Your task to perform on an android device: search for starred emails in the gmail app Image 0: 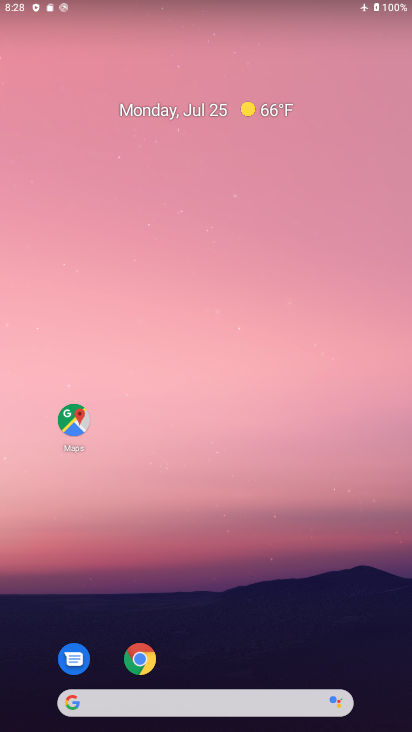
Step 0: click (183, 212)
Your task to perform on an android device: search for starred emails in the gmail app Image 1: 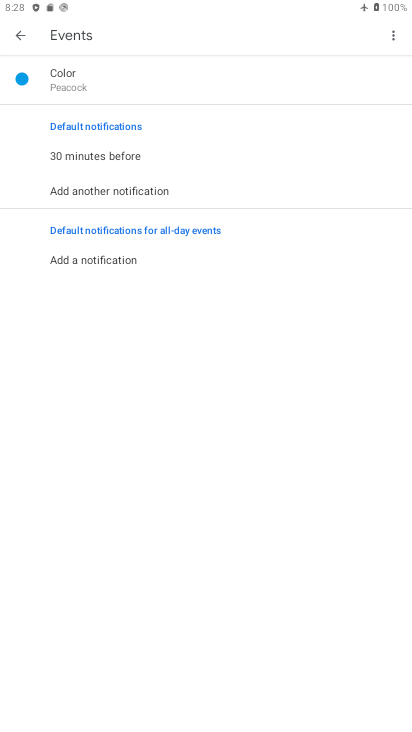
Step 1: click (30, 29)
Your task to perform on an android device: search for starred emails in the gmail app Image 2: 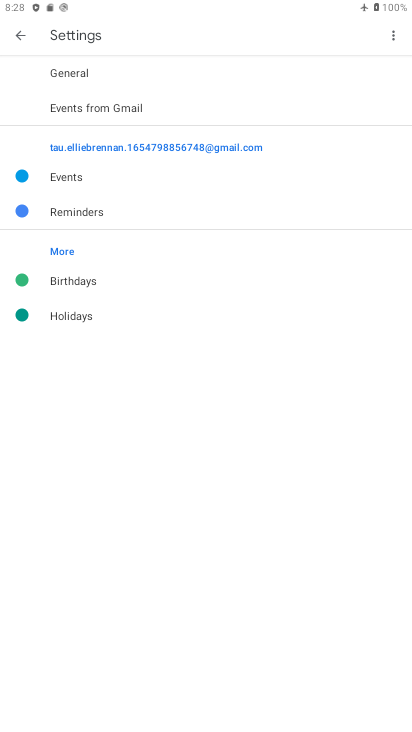
Step 2: click (29, 36)
Your task to perform on an android device: search for starred emails in the gmail app Image 3: 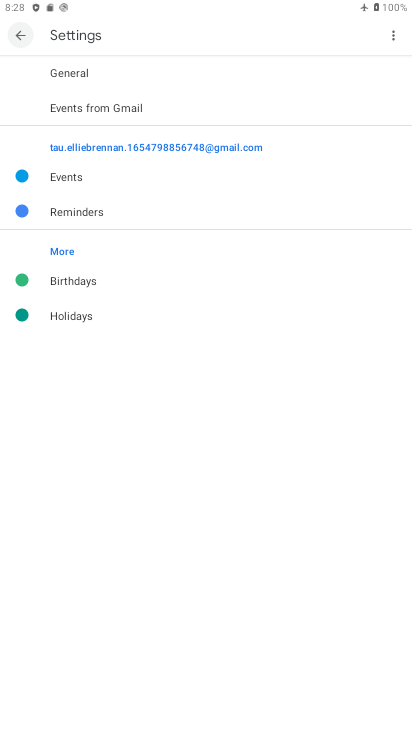
Step 3: click (18, 35)
Your task to perform on an android device: search for starred emails in the gmail app Image 4: 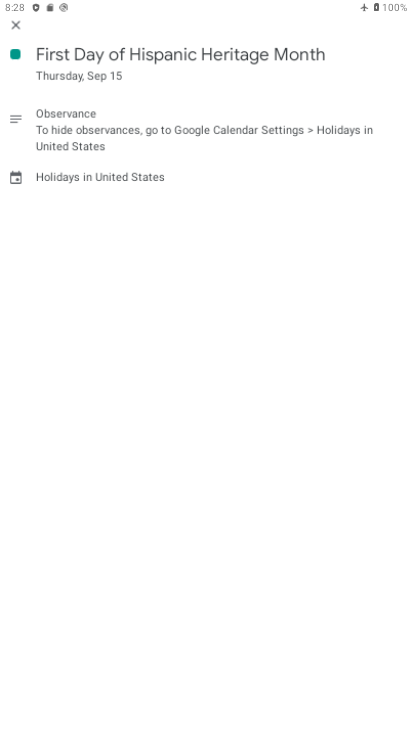
Step 4: click (18, 35)
Your task to perform on an android device: search for starred emails in the gmail app Image 5: 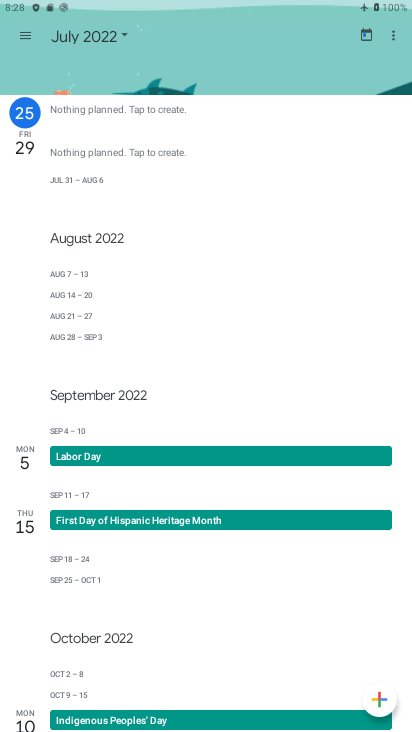
Step 5: press back button
Your task to perform on an android device: search for starred emails in the gmail app Image 6: 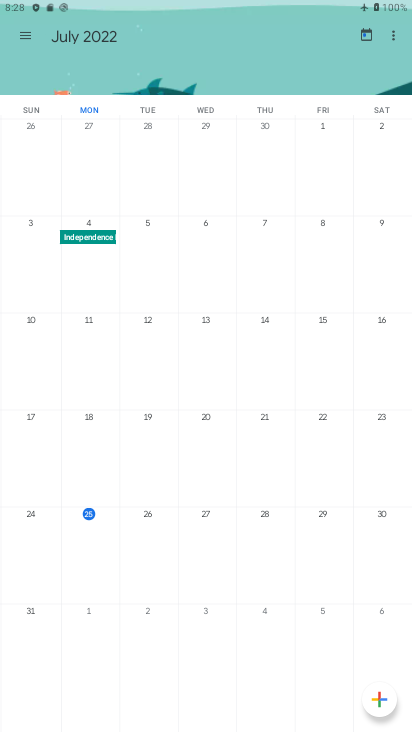
Step 6: press back button
Your task to perform on an android device: search for starred emails in the gmail app Image 7: 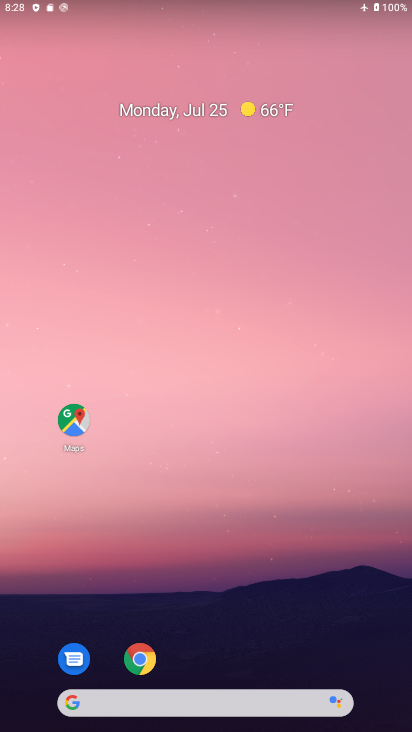
Step 7: drag from (231, 342) to (216, 144)
Your task to perform on an android device: search for starred emails in the gmail app Image 8: 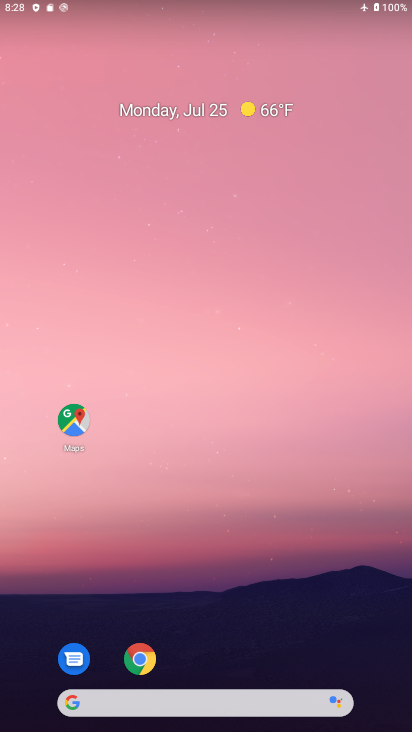
Step 8: drag from (274, 624) to (190, 156)
Your task to perform on an android device: search for starred emails in the gmail app Image 9: 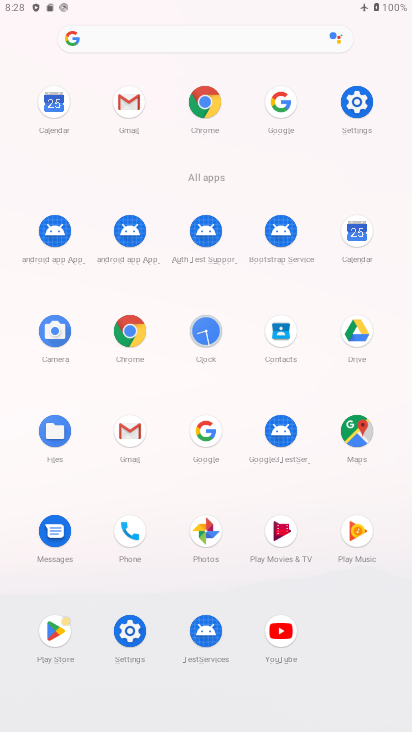
Step 9: drag from (238, 461) to (207, 164)
Your task to perform on an android device: search for starred emails in the gmail app Image 10: 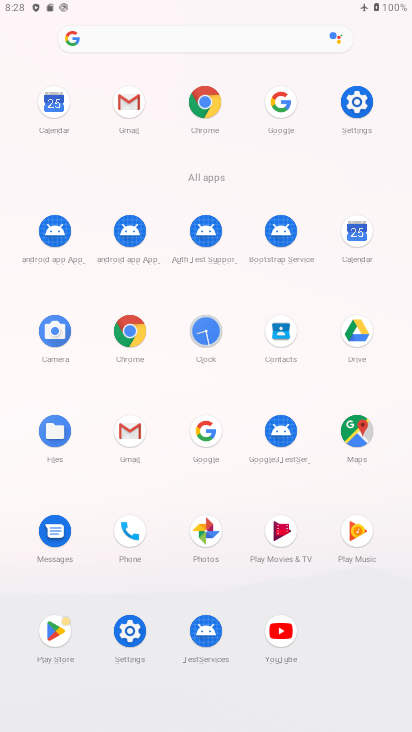
Step 10: click (124, 411)
Your task to perform on an android device: search for starred emails in the gmail app Image 11: 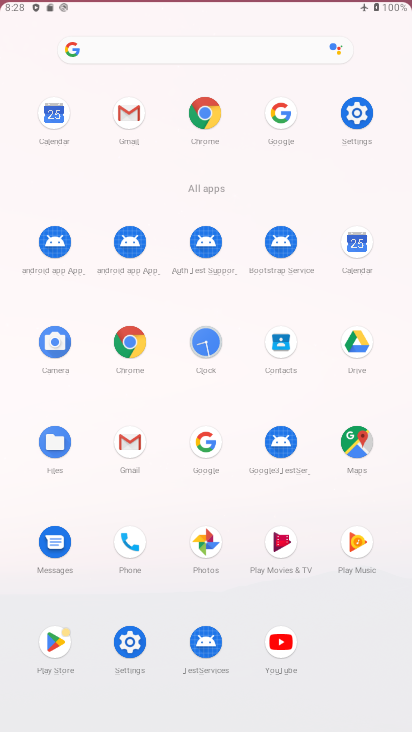
Step 11: click (127, 428)
Your task to perform on an android device: search for starred emails in the gmail app Image 12: 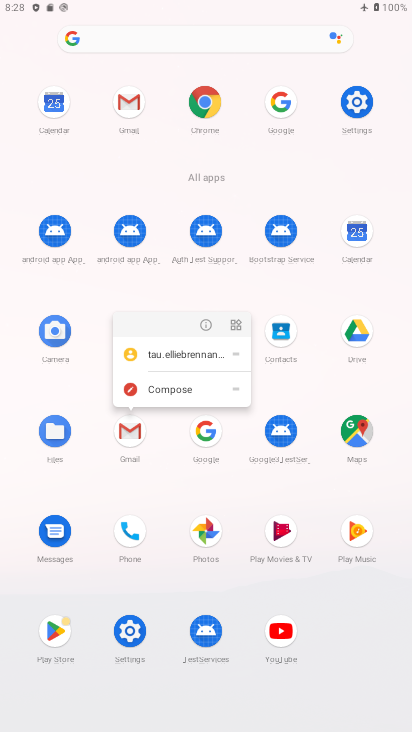
Step 12: click (139, 424)
Your task to perform on an android device: search for starred emails in the gmail app Image 13: 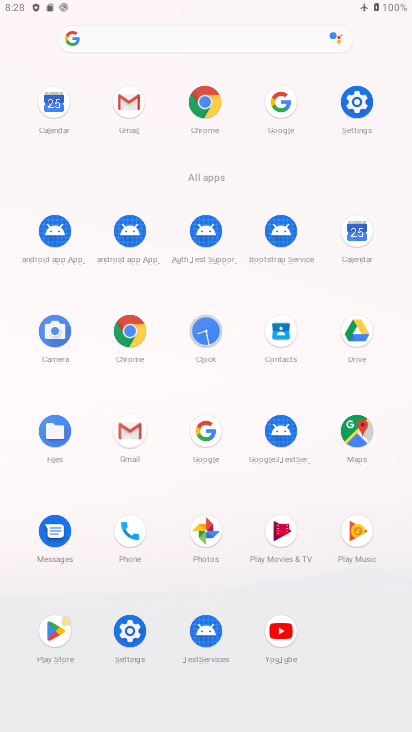
Step 13: click (132, 432)
Your task to perform on an android device: search for starred emails in the gmail app Image 14: 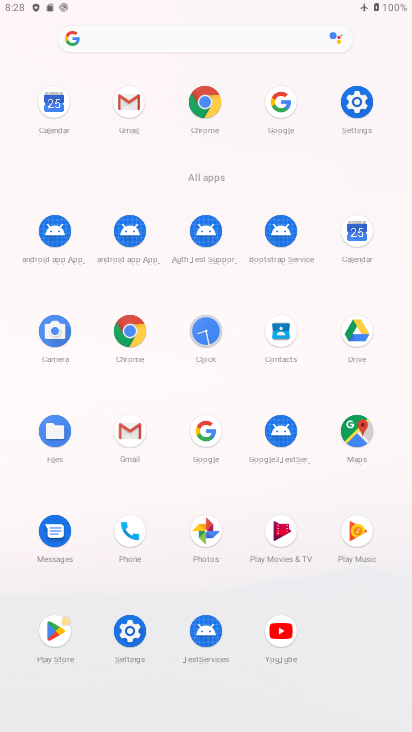
Step 14: click (133, 438)
Your task to perform on an android device: search for starred emails in the gmail app Image 15: 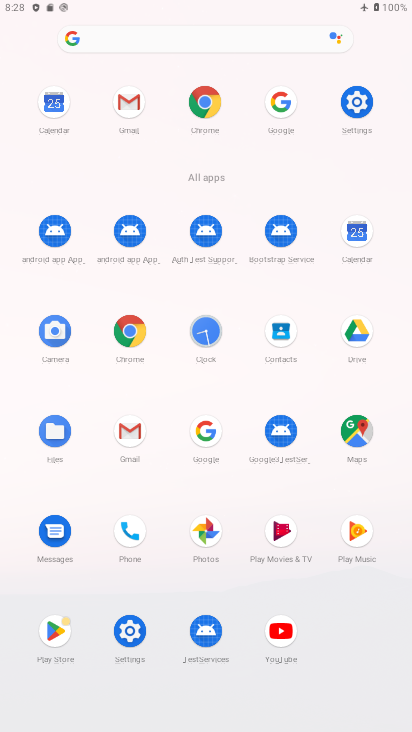
Step 15: click (110, 437)
Your task to perform on an android device: search for starred emails in the gmail app Image 16: 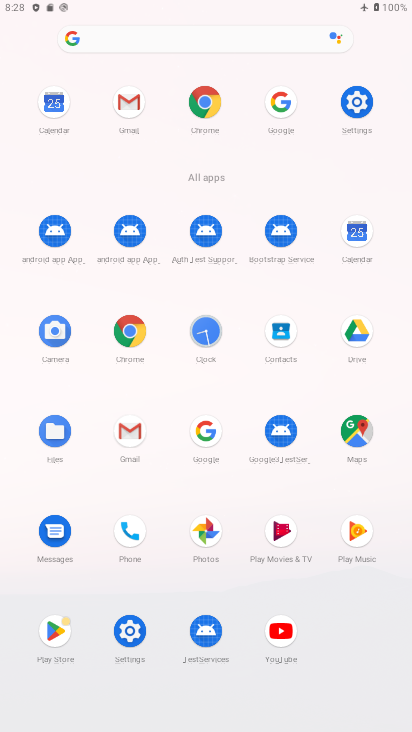
Step 16: click (128, 422)
Your task to perform on an android device: search for starred emails in the gmail app Image 17: 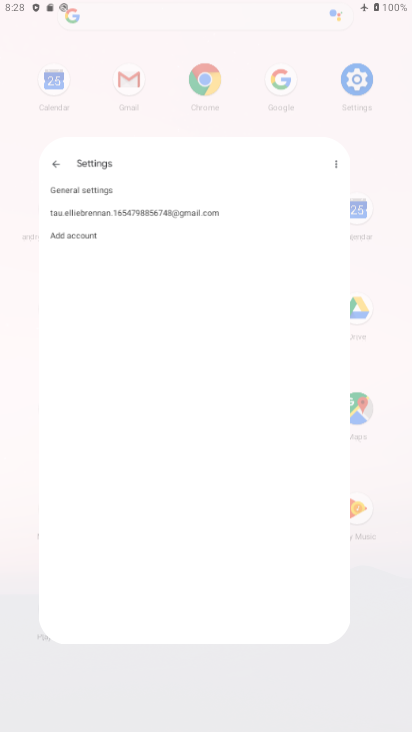
Step 17: click (133, 439)
Your task to perform on an android device: search for starred emails in the gmail app Image 18: 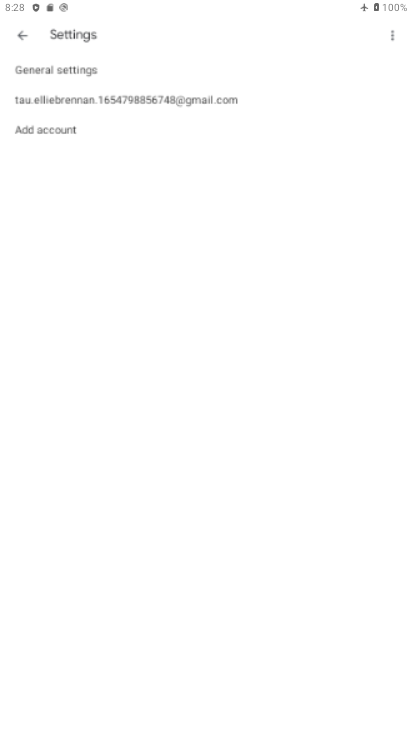
Step 18: click (133, 443)
Your task to perform on an android device: search for starred emails in the gmail app Image 19: 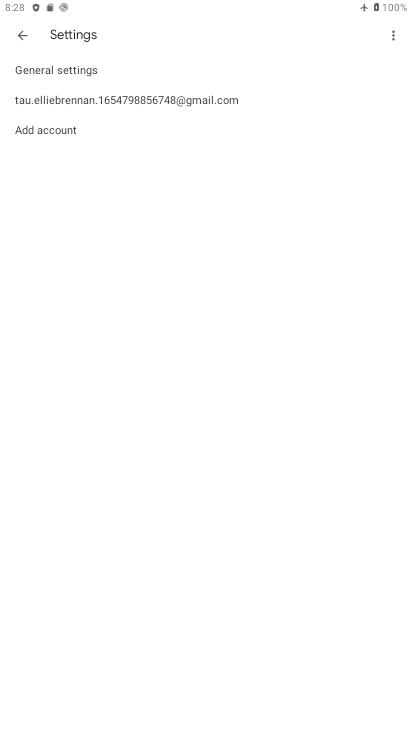
Step 19: click (133, 445)
Your task to perform on an android device: search for starred emails in the gmail app Image 20: 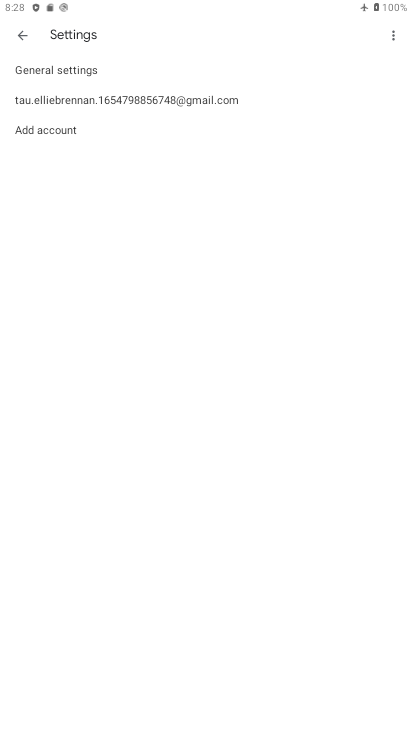
Step 20: click (127, 447)
Your task to perform on an android device: search for starred emails in the gmail app Image 21: 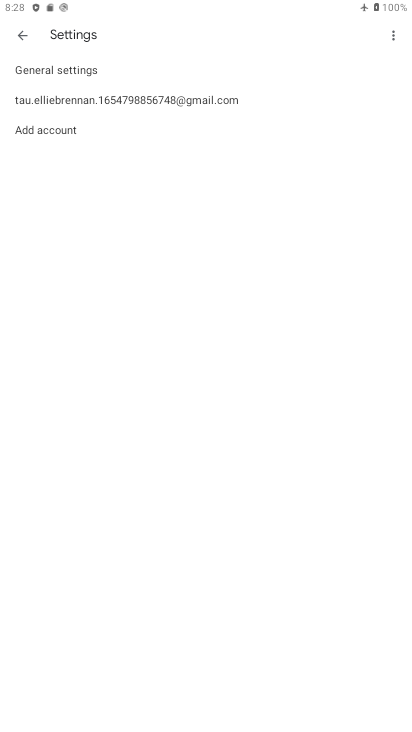
Step 21: click (68, 103)
Your task to perform on an android device: search for starred emails in the gmail app Image 22: 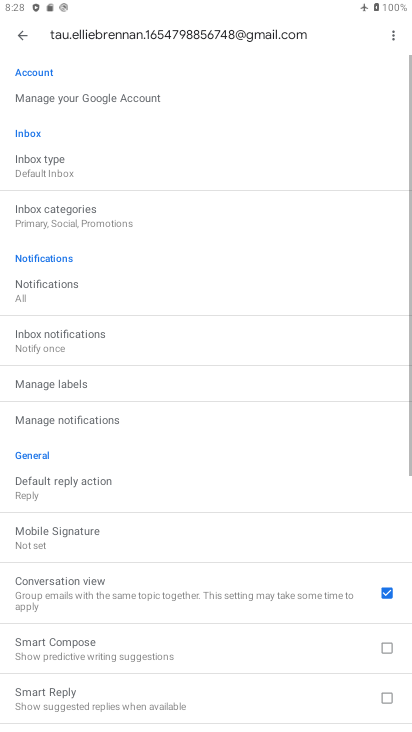
Step 22: click (7, 33)
Your task to perform on an android device: search for starred emails in the gmail app Image 23: 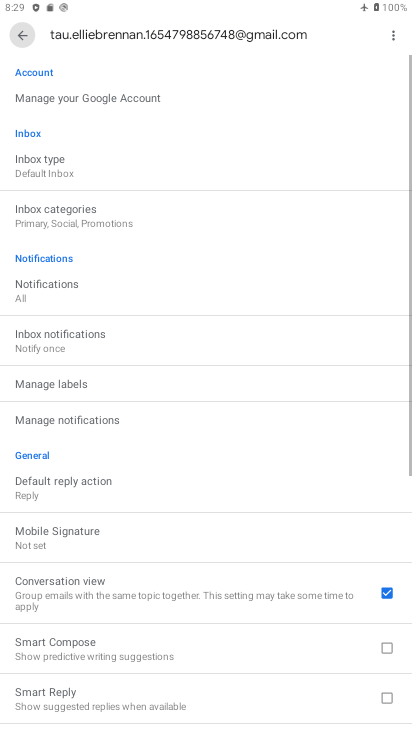
Step 23: click (7, 33)
Your task to perform on an android device: search for starred emails in the gmail app Image 24: 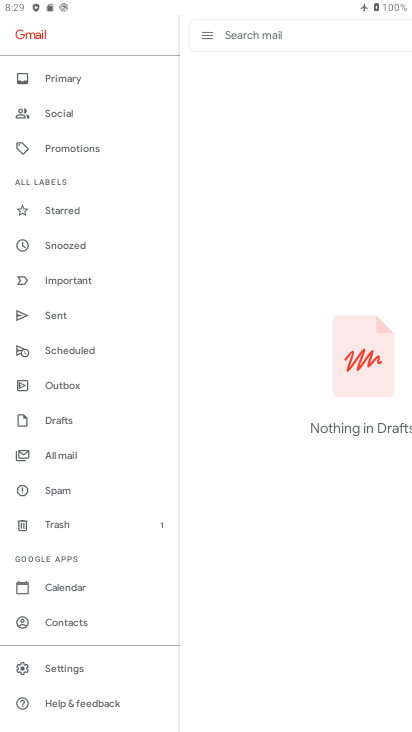
Step 24: click (17, 32)
Your task to perform on an android device: search for starred emails in the gmail app Image 25: 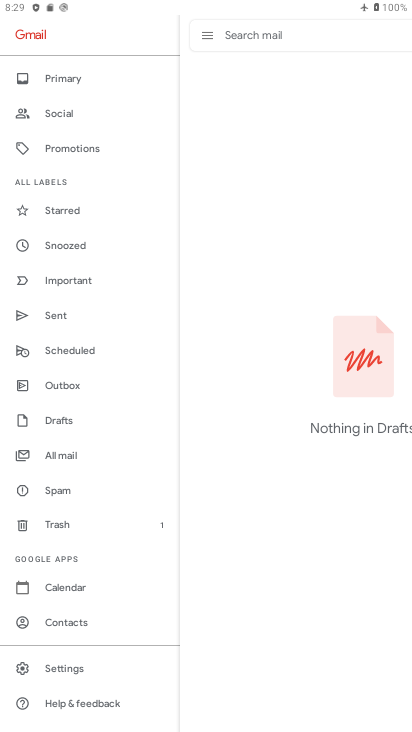
Step 25: press back button
Your task to perform on an android device: search for starred emails in the gmail app Image 26: 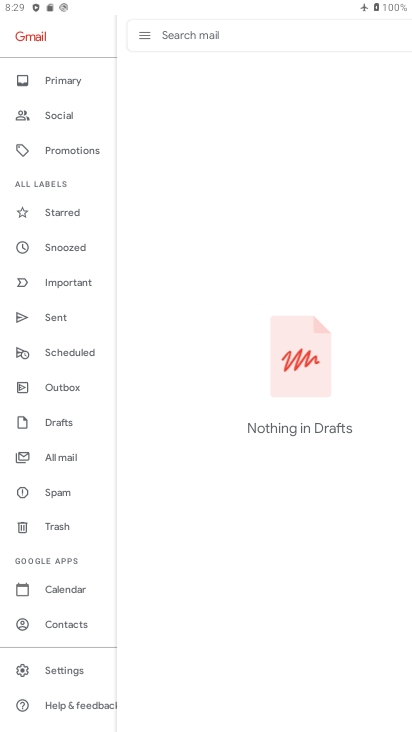
Step 26: press back button
Your task to perform on an android device: search for starred emails in the gmail app Image 27: 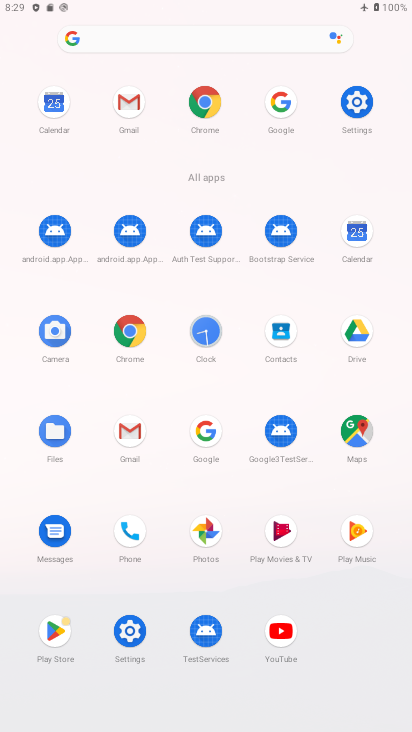
Step 27: click (124, 435)
Your task to perform on an android device: search for starred emails in the gmail app Image 28: 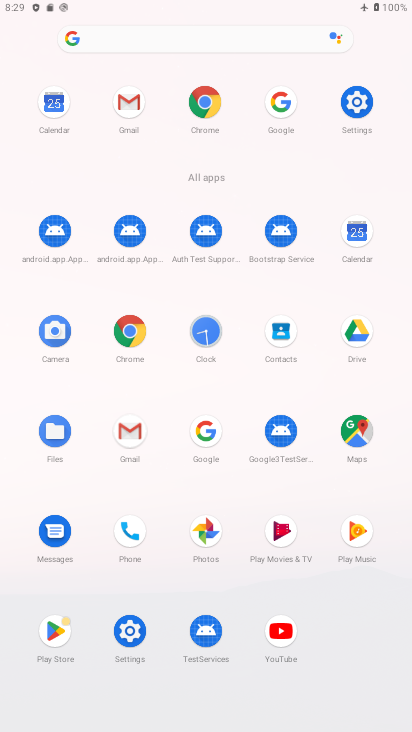
Step 28: click (129, 435)
Your task to perform on an android device: search for starred emails in the gmail app Image 29: 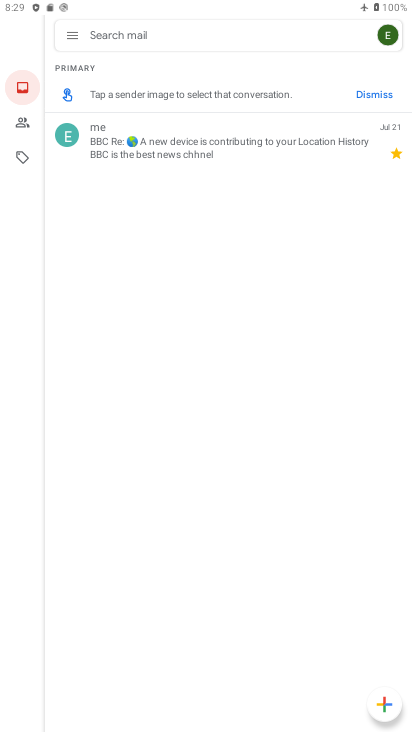
Step 29: task complete